Your task to perform on an android device: visit the assistant section in the google photos Image 0: 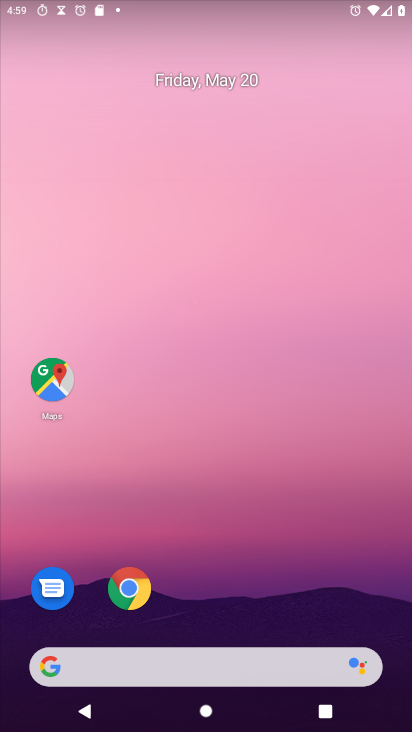
Step 0: drag from (279, 598) to (298, 142)
Your task to perform on an android device: visit the assistant section in the google photos Image 1: 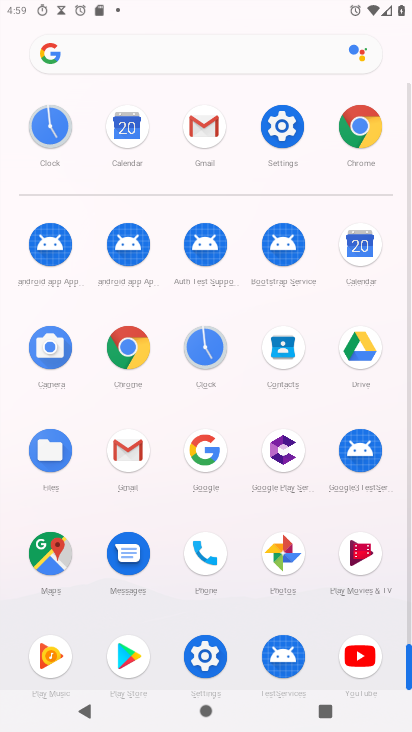
Step 1: click (279, 545)
Your task to perform on an android device: visit the assistant section in the google photos Image 2: 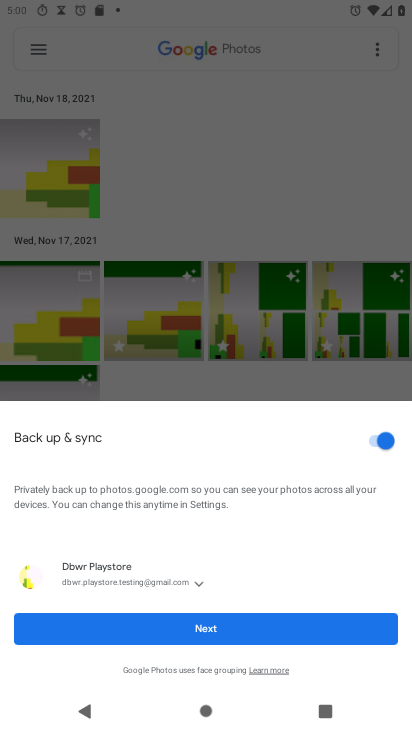
Step 2: click (314, 624)
Your task to perform on an android device: visit the assistant section in the google photos Image 3: 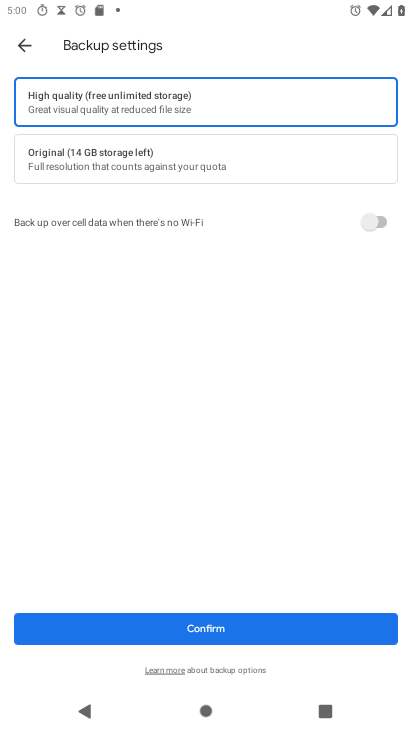
Step 3: click (357, 627)
Your task to perform on an android device: visit the assistant section in the google photos Image 4: 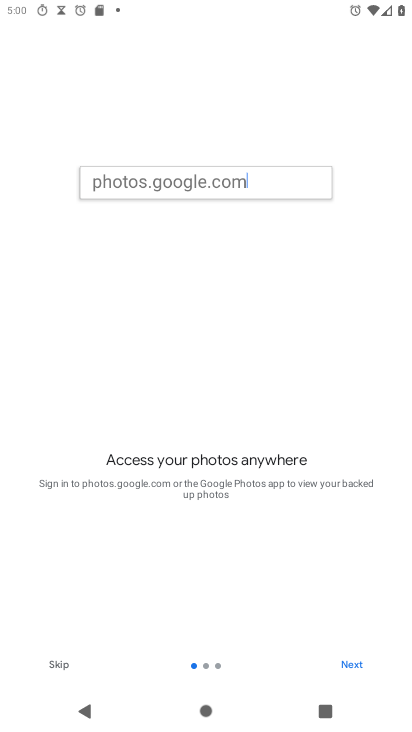
Step 4: click (339, 664)
Your task to perform on an android device: visit the assistant section in the google photos Image 5: 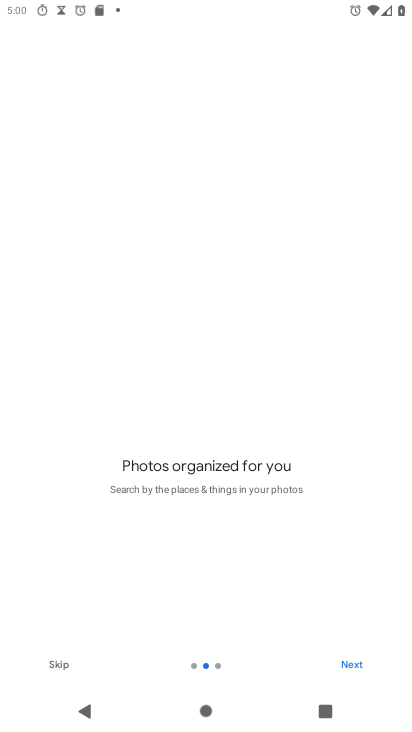
Step 5: click (341, 664)
Your task to perform on an android device: visit the assistant section in the google photos Image 6: 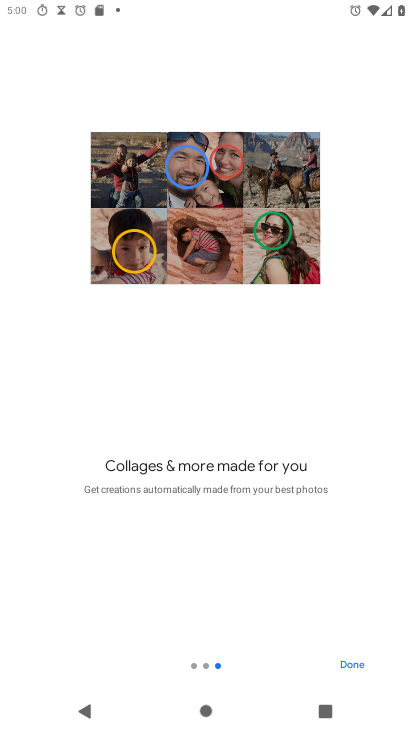
Step 6: click (341, 664)
Your task to perform on an android device: visit the assistant section in the google photos Image 7: 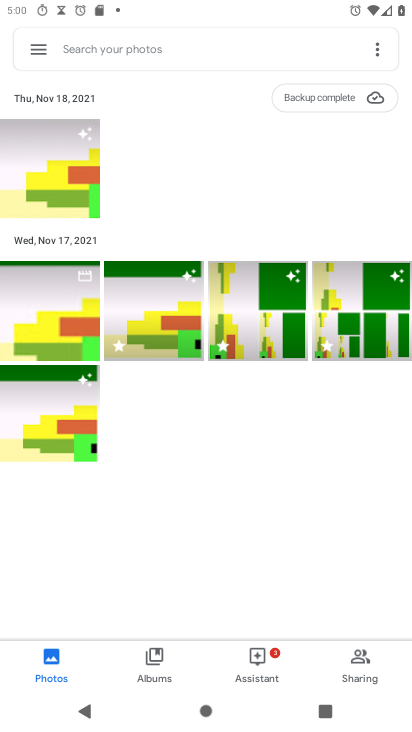
Step 7: click (341, 664)
Your task to perform on an android device: visit the assistant section in the google photos Image 8: 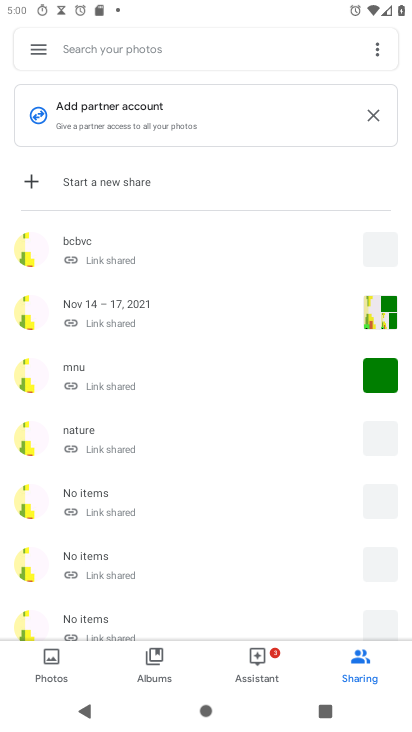
Step 8: click (266, 648)
Your task to perform on an android device: visit the assistant section in the google photos Image 9: 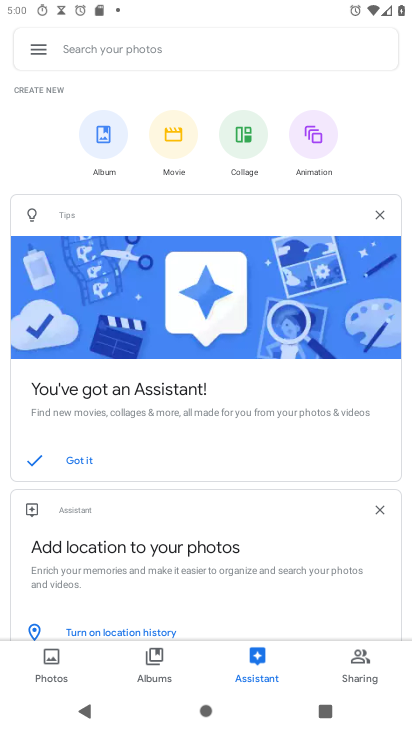
Step 9: task complete